Your task to perform on an android device: toggle airplane mode Image 0: 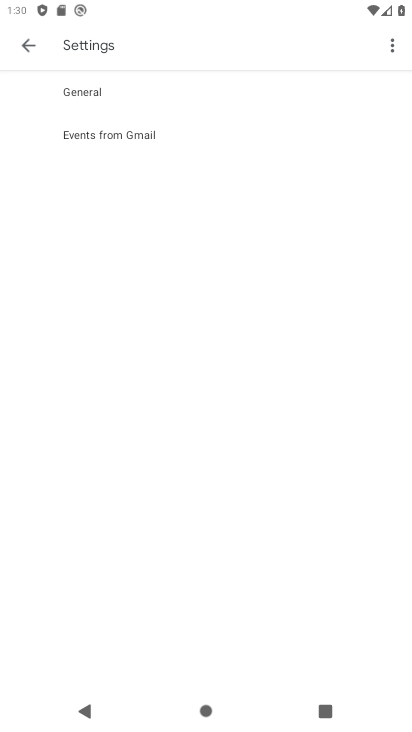
Step 0: press home button
Your task to perform on an android device: toggle airplane mode Image 1: 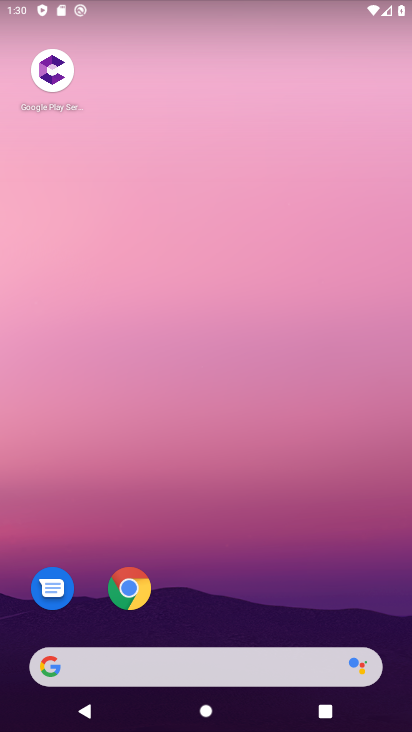
Step 1: drag from (335, 610) to (244, 32)
Your task to perform on an android device: toggle airplane mode Image 2: 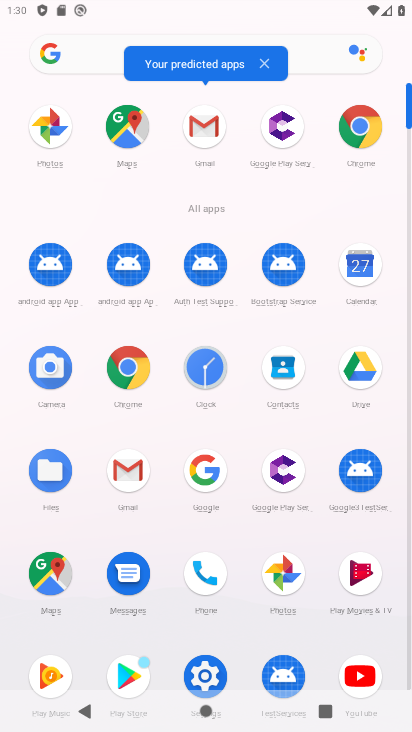
Step 2: click (204, 674)
Your task to perform on an android device: toggle airplane mode Image 3: 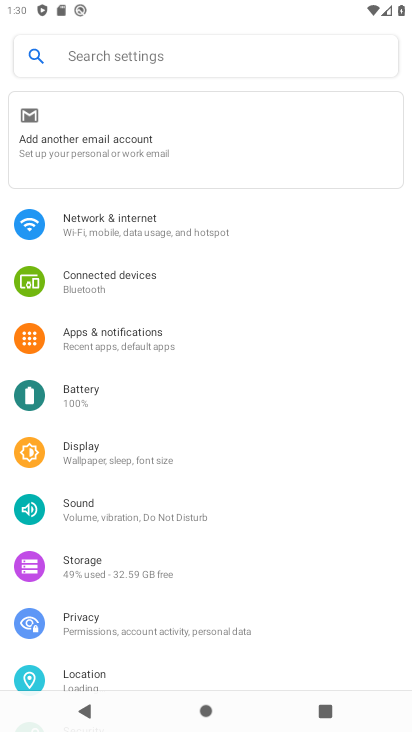
Step 3: click (112, 230)
Your task to perform on an android device: toggle airplane mode Image 4: 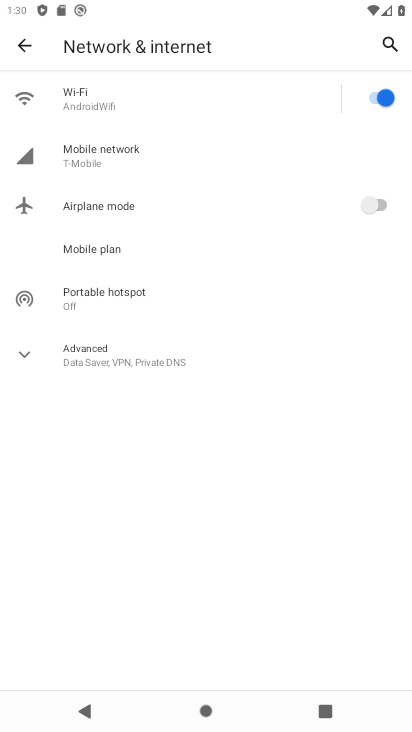
Step 4: click (381, 207)
Your task to perform on an android device: toggle airplane mode Image 5: 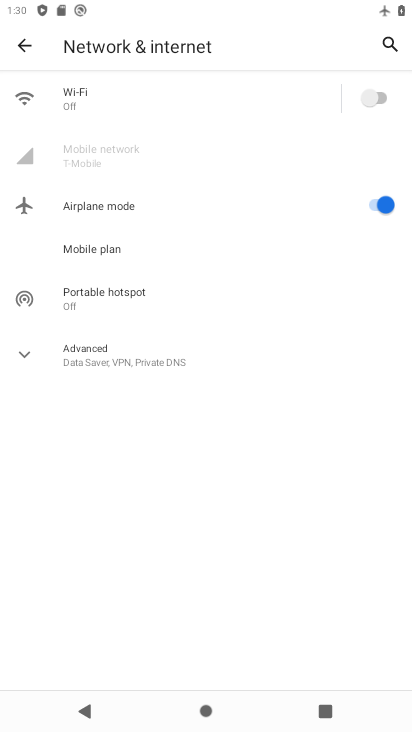
Step 5: task complete